Your task to perform on an android device: turn off airplane mode Image 0: 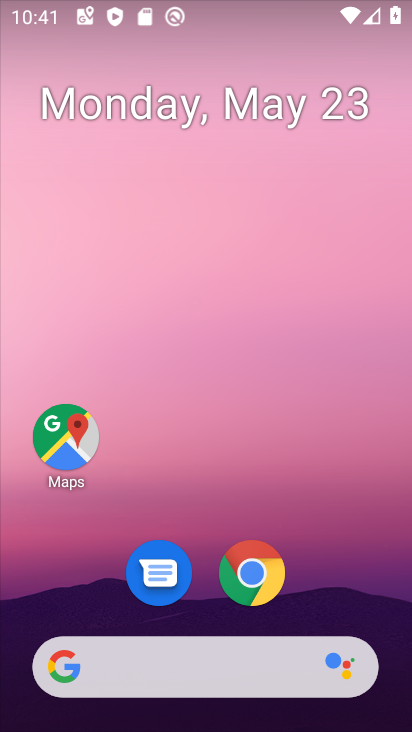
Step 0: drag from (223, 648) to (326, 61)
Your task to perform on an android device: turn off airplane mode Image 1: 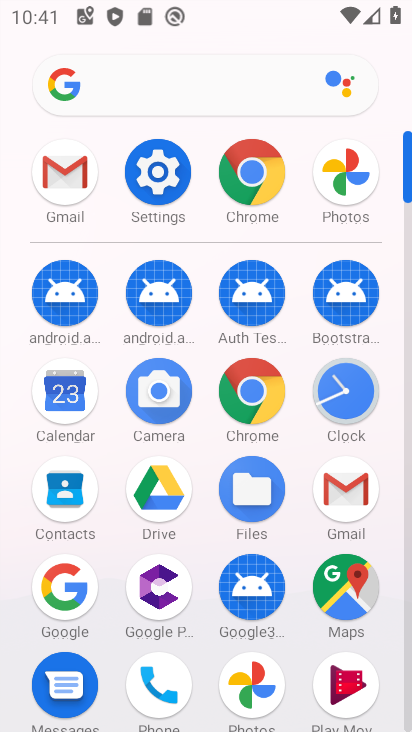
Step 1: click (159, 191)
Your task to perform on an android device: turn off airplane mode Image 2: 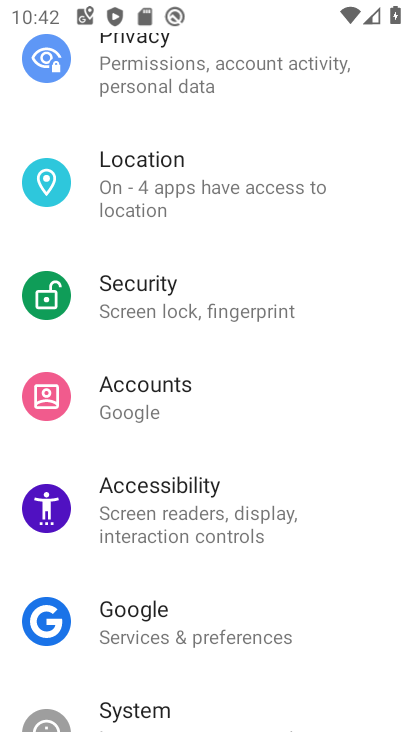
Step 2: drag from (188, 353) to (196, 726)
Your task to perform on an android device: turn off airplane mode Image 3: 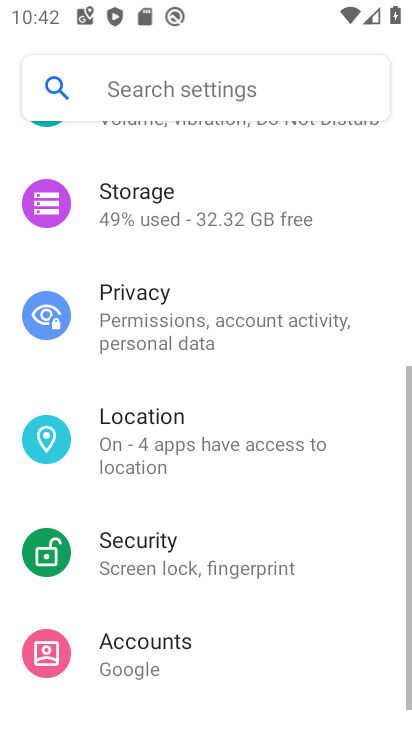
Step 3: drag from (244, 297) to (207, 709)
Your task to perform on an android device: turn off airplane mode Image 4: 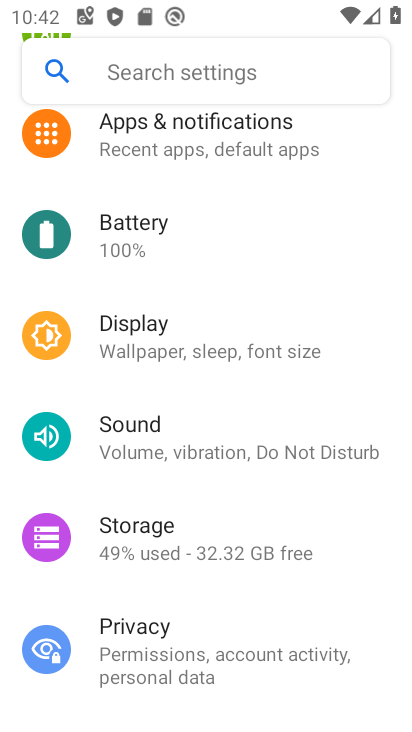
Step 4: drag from (249, 236) to (311, 730)
Your task to perform on an android device: turn off airplane mode Image 5: 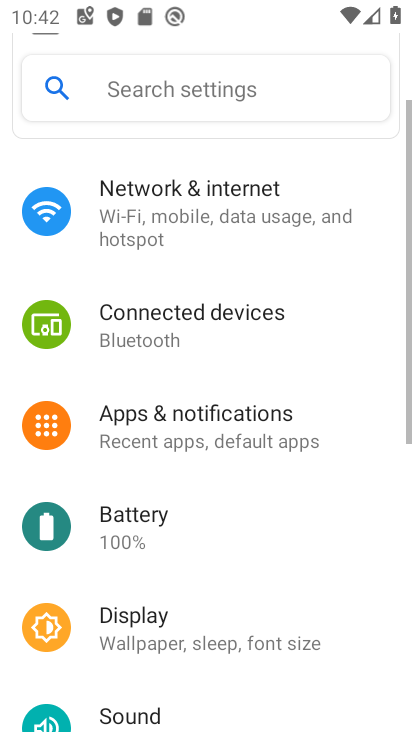
Step 5: drag from (256, 241) to (204, 715)
Your task to perform on an android device: turn off airplane mode Image 6: 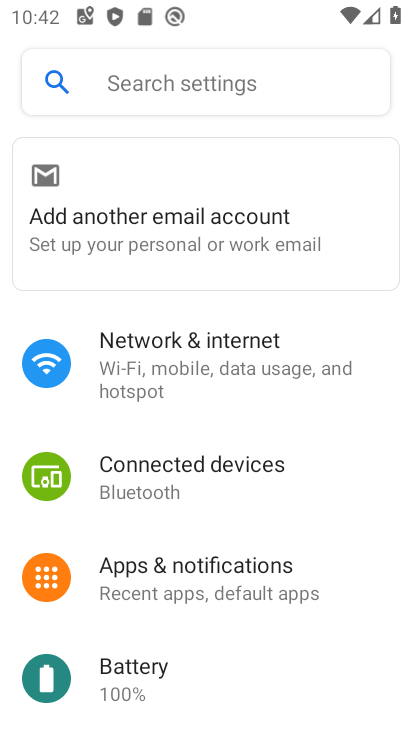
Step 6: click (230, 381)
Your task to perform on an android device: turn off airplane mode Image 7: 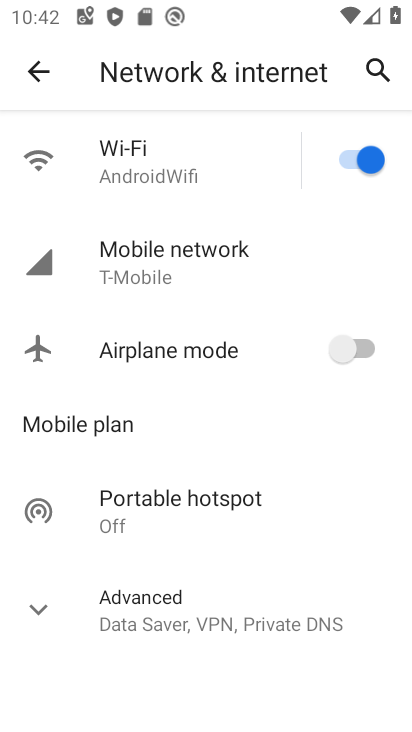
Step 7: task complete